Your task to perform on an android device: Open Chrome and go to settings Image 0: 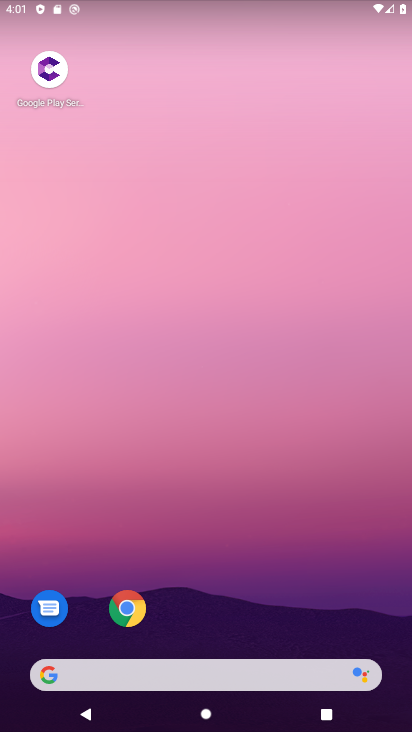
Step 0: click (134, 599)
Your task to perform on an android device: Open Chrome and go to settings Image 1: 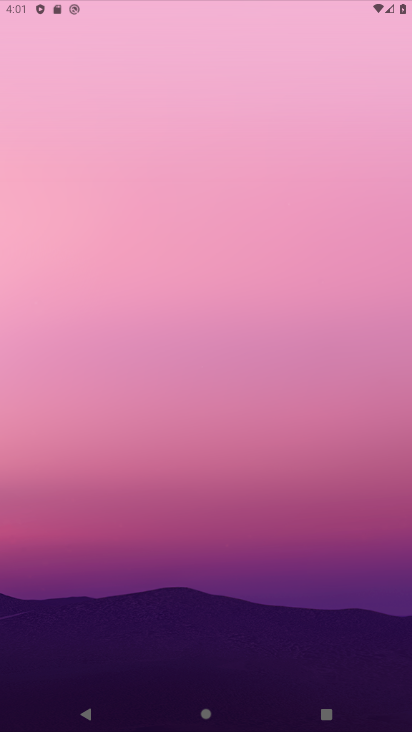
Step 1: click (134, 599)
Your task to perform on an android device: Open Chrome and go to settings Image 2: 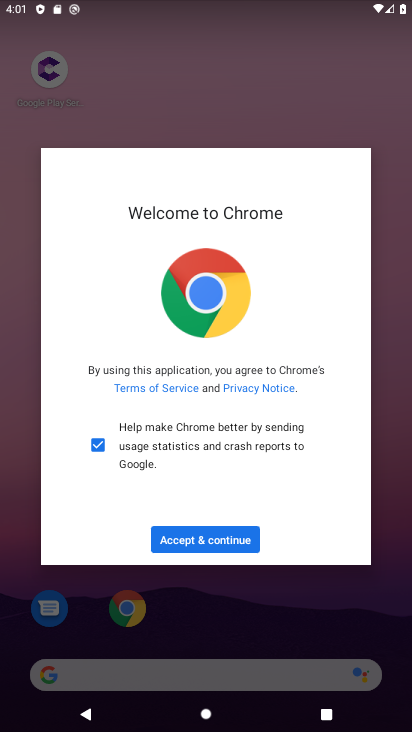
Step 2: click (224, 544)
Your task to perform on an android device: Open Chrome and go to settings Image 3: 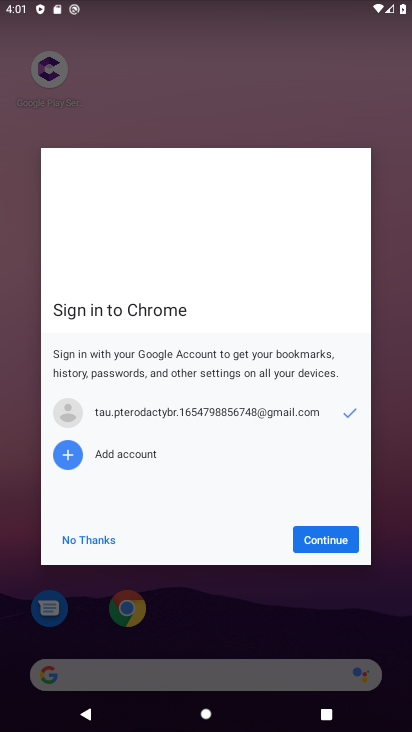
Step 3: click (314, 543)
Your task to perform on an android device: Open Chrome and go to settings Image 4: 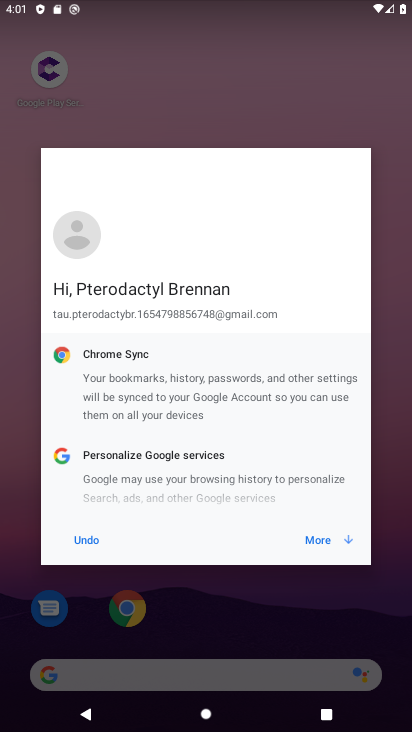
Step 4: click (308, 534)
Your task to perform on an android device: Open Chrome and go to settings Image 5: 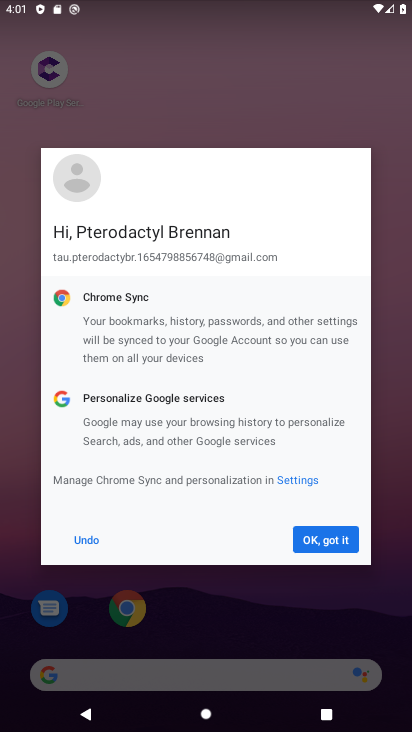
Step 5: click (323, 528)
Your task to perform on an android device: Open Chrome and go to settings Image 6: 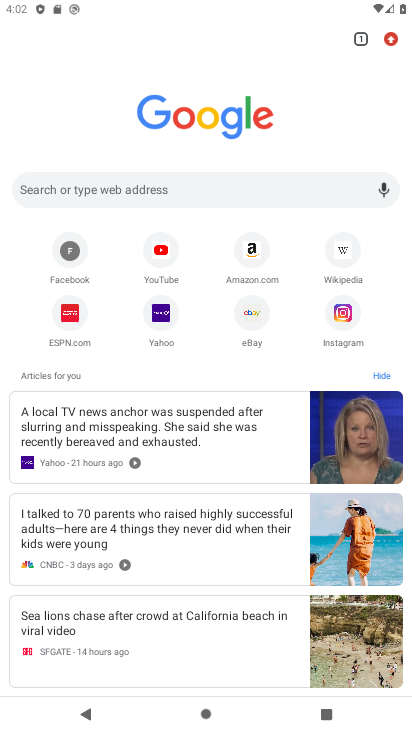
Step 6: click (389, 36)
Your task to perform on an android device: Open Chrome and go to settings Image 7: 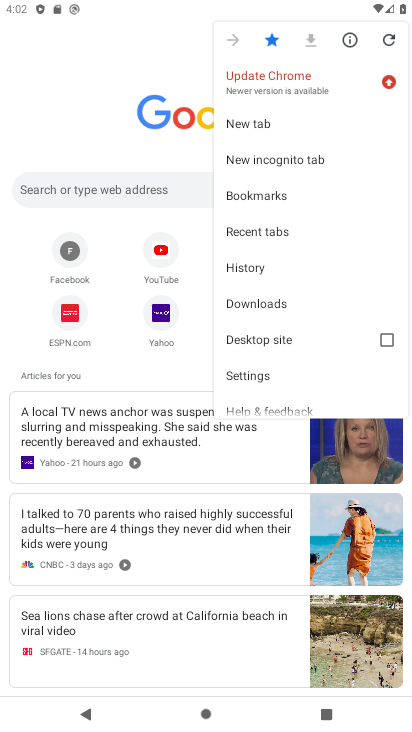
Step 7: click (240, 385)
Your task to perform on an android device: Open Chrome and go to settings Image 8: 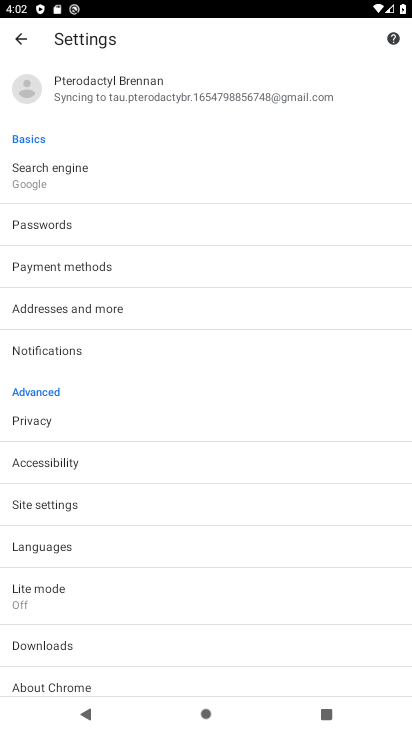
Step 8: press home button
Your task to perform on an android device: Open Chrome and go to settings Image 9: 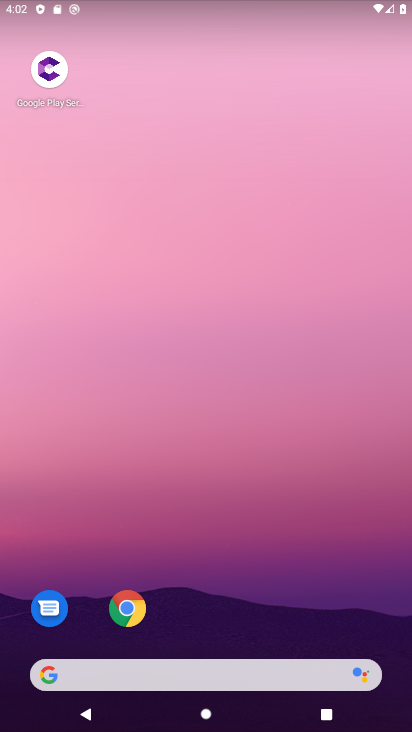
Step 9: click (119, 599)
Your task to perform on an android device: Open Chrome and go to settings Image 10: 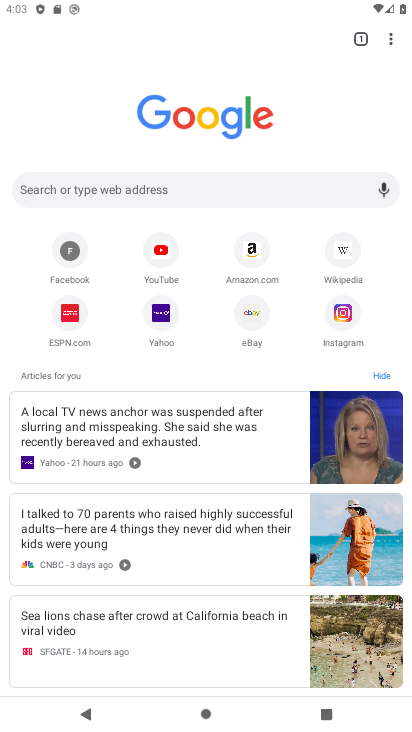
Step 10: click (397, 28)
Your task to perform on an android device: Open Chrome and go to settings Image 11: 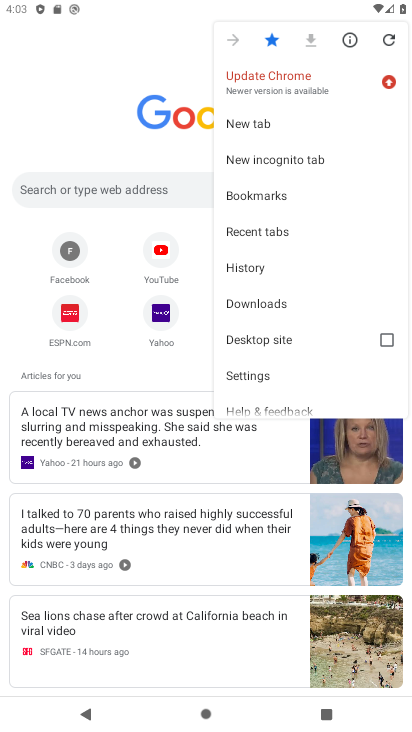
Step 11: click (259, 373)
Your task to perform on an android device: Open Chrome and go to settings Image 12: 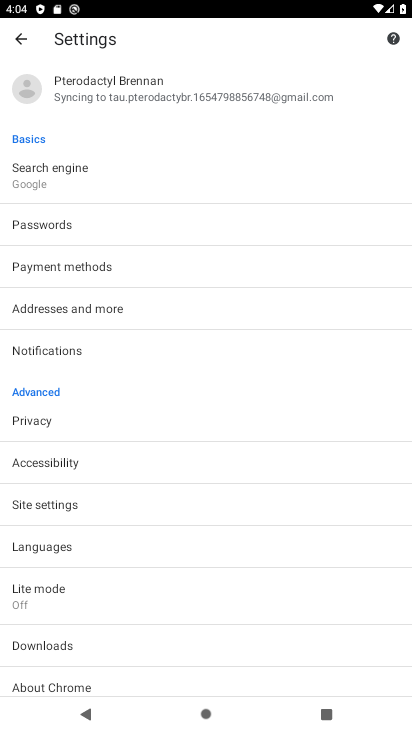
Step 12: task complete